Your task to perform on an android device: set an alarm Image 0: 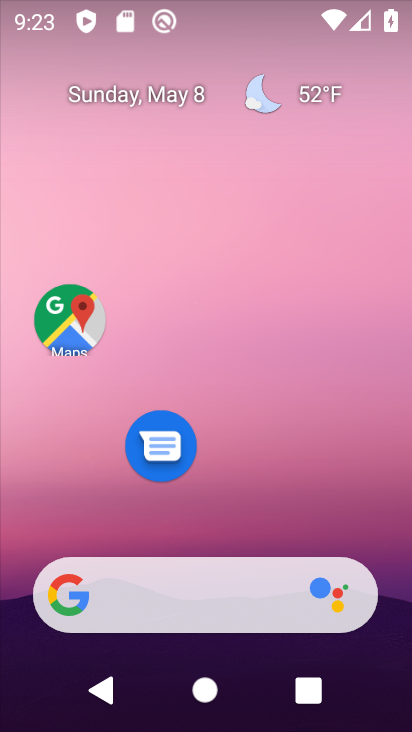
Step 0: drag from (325, 497) to (306, 0)
Your task to perform on an android device: set an alarm Image 1: 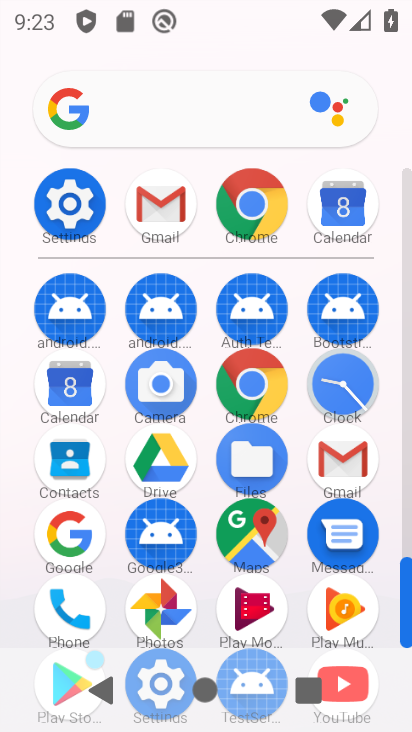
Step 1: click (319, 382)
Your task to perform on an android device: set an alarm Image 2: 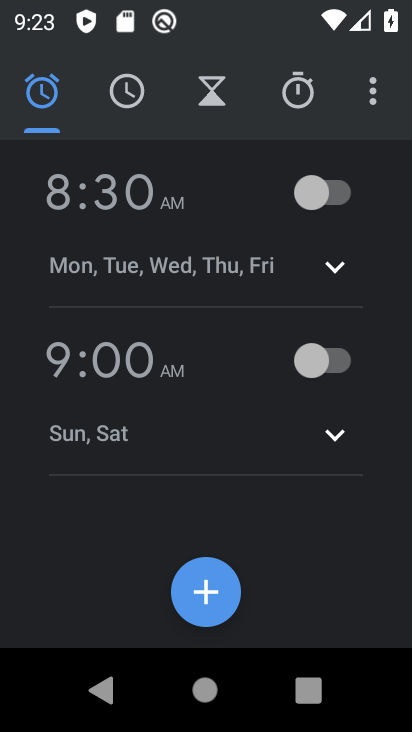
Step 2: click (204, 596)
Your task to perform on an android device: set an alarm Image 3: 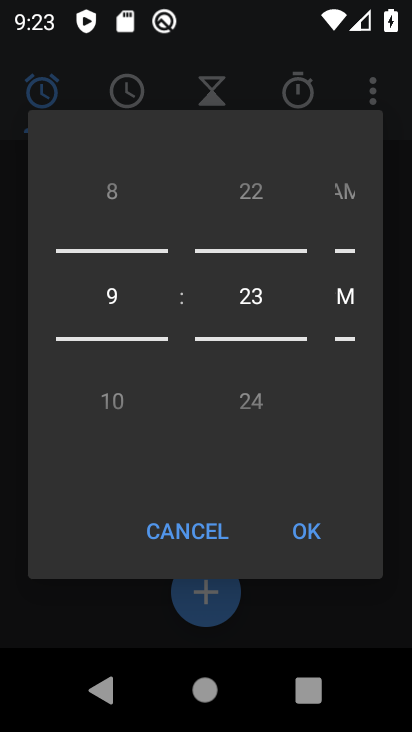
Step 3: drag from (258, 404) to (252, 150)
Your task to perform on an android device: set an alarm Image 4: 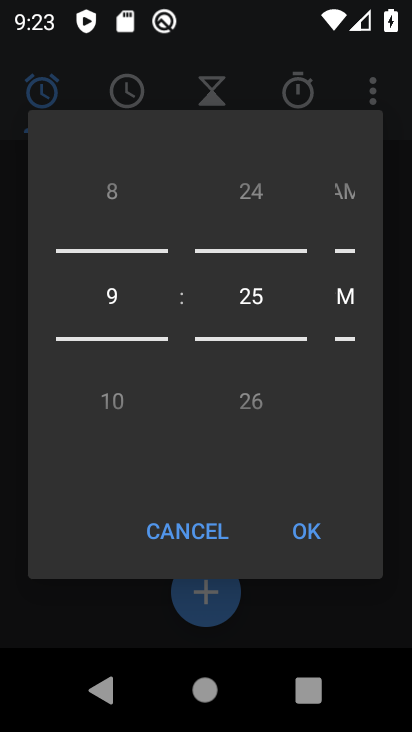
Step 4: drag from (129, 186) to (96, 649)
Your task to perform on an android device: set an alarm Image 5: 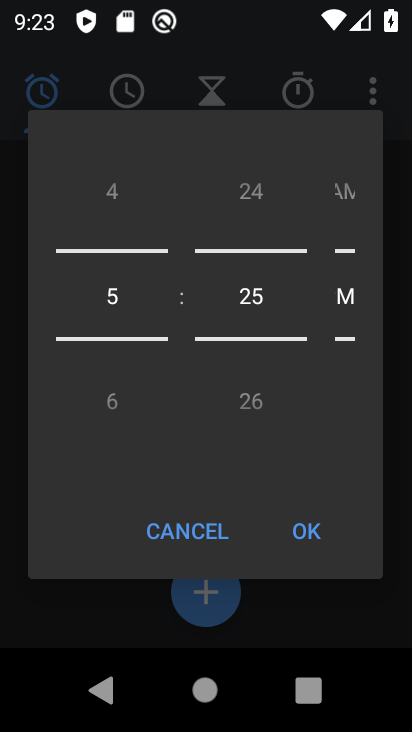
Step 5: drag from (330, 200) to (330, 534)
Your task to perform on an android device: set an alarm Image 6: 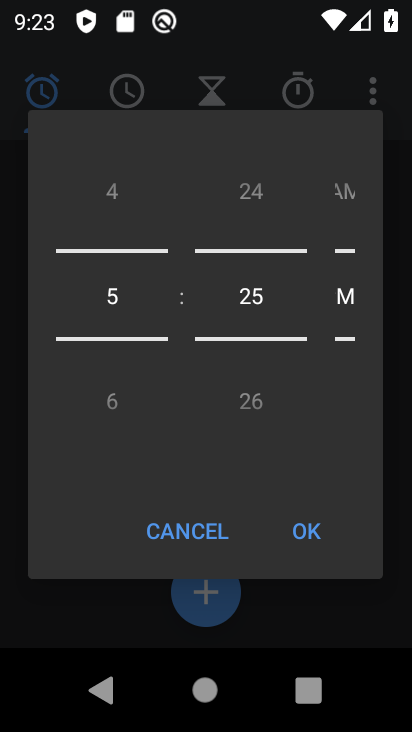
Step 6: drag from (355, 225) to (343, 472)
Your task to perform on an android device: set an alarm Image 7: 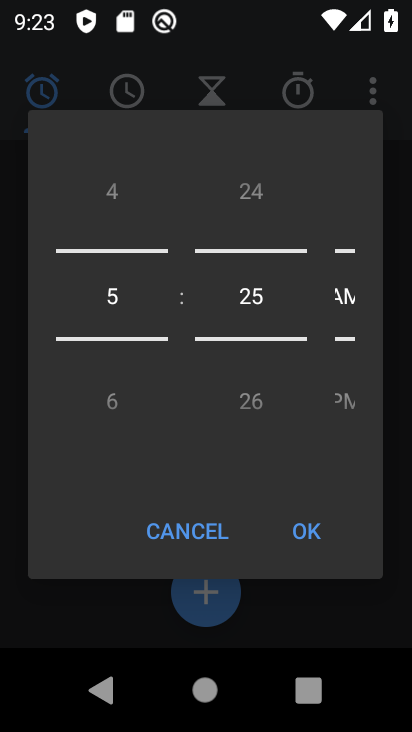
Step 7: click (304, 539)
Your task to perform on an android device: set an alarm Image 8: 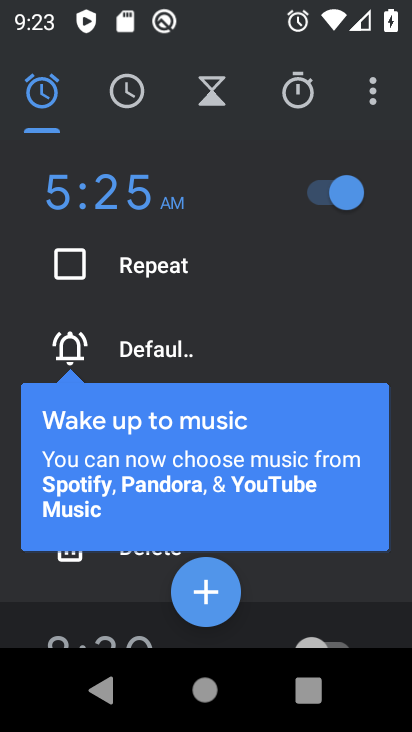
Step 8: task complete